Your task to perform on an android device: Open Yahoo.com Image 0: 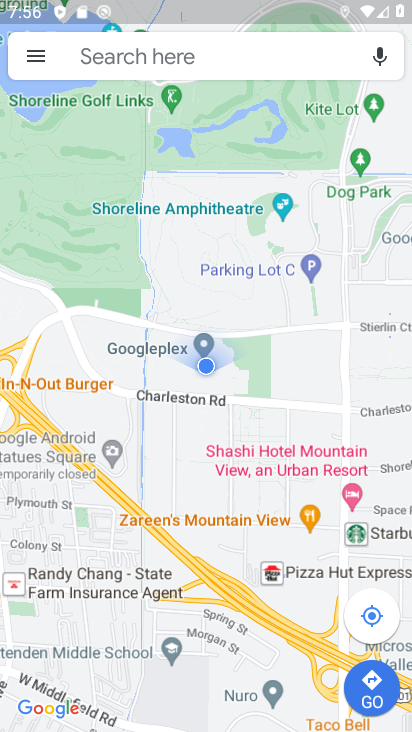
Step 0: press home button
Your task to perform on an android device: Open Yahoo.com Image 1: 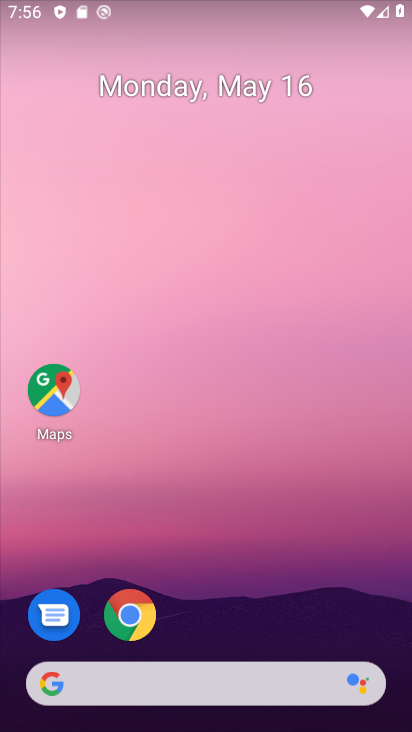
Step 1: click (144, 621)
Your task to perform on an android device: Open Yahoo.com Image 2: 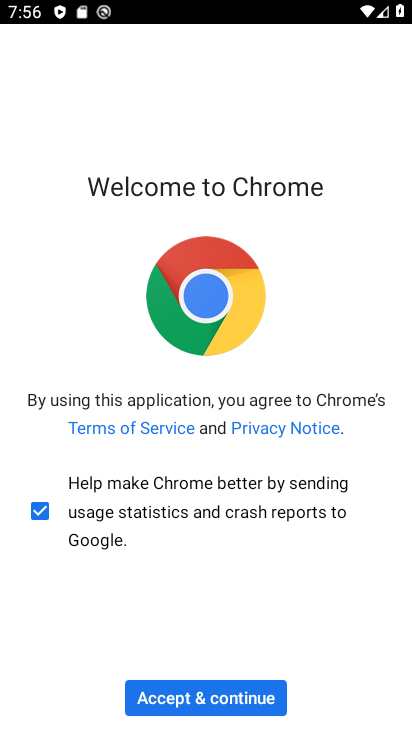
Step 2: click (201, 703)
Your task to perform on an android device: Open Yahoo.com Image 3: 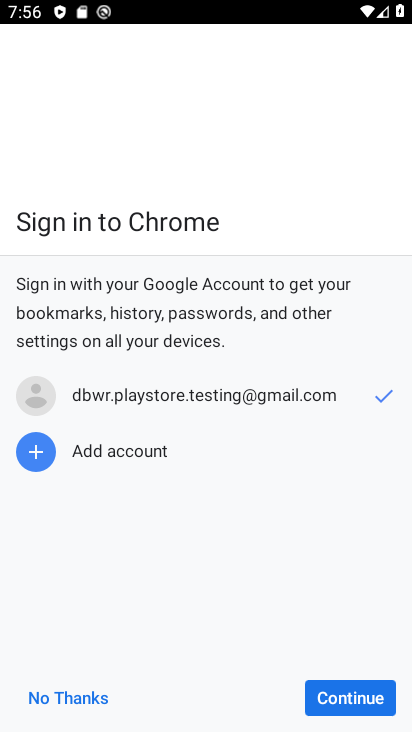
Step 3: click (365, 706)
Your task to perform on an android device: Open Yahoo.com Image 4: 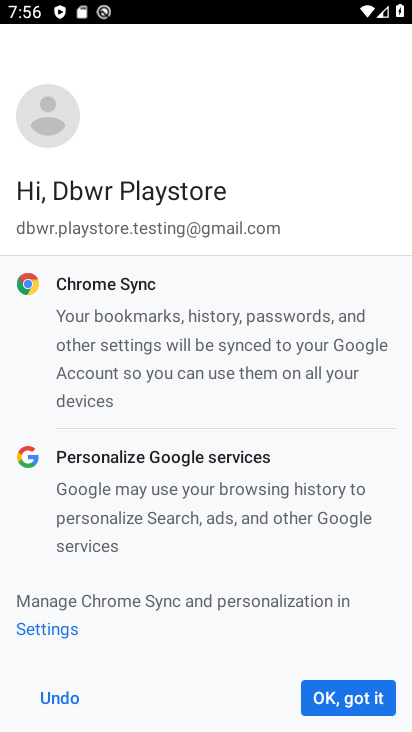
Step 4: click (360, 703)
Your task to perform on an android device: Open Yahoo.com Image 5: 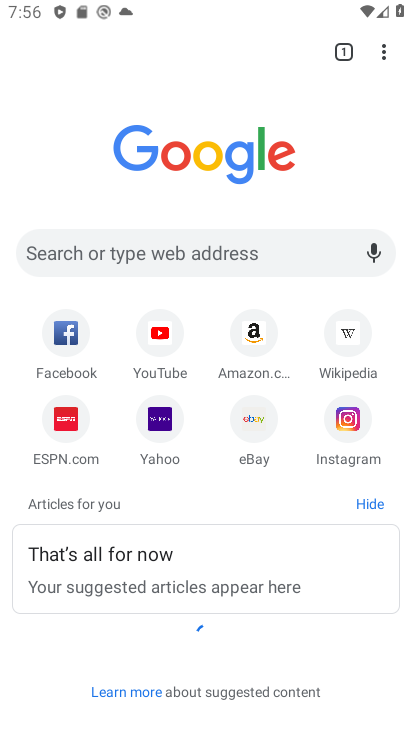
Step 5: click (159, 414)
Your task to perform on an android device: Open Yahoo.com Image 6: 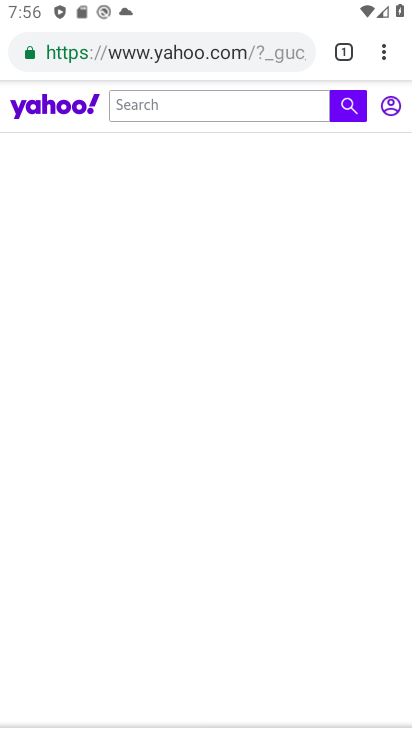
Step 6: task complete